Your task to perform on an android device: When is my next appointment? Image 0: 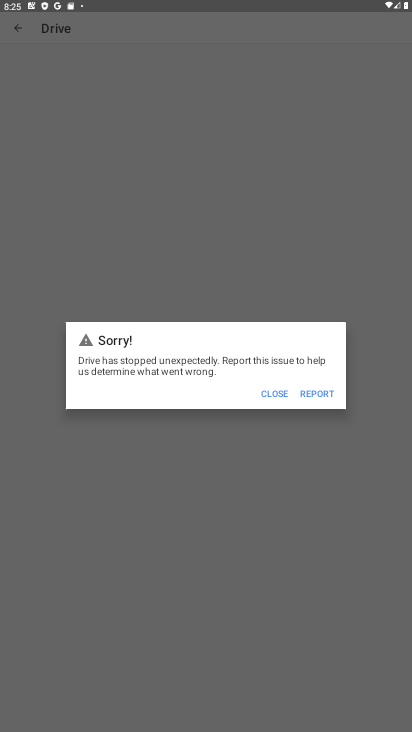
Step 0: click (310, 392)
Your task to perform on an android device: When is my next appointment? Image 1: 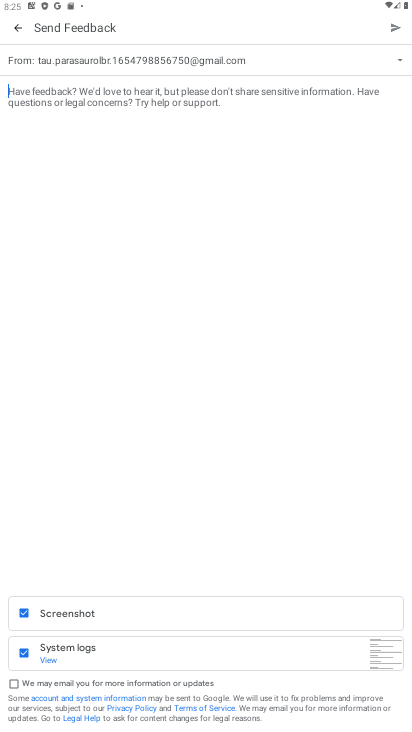
Step 1: press home button
Your task to perform on an android device: When is my next appointment? Image 2: 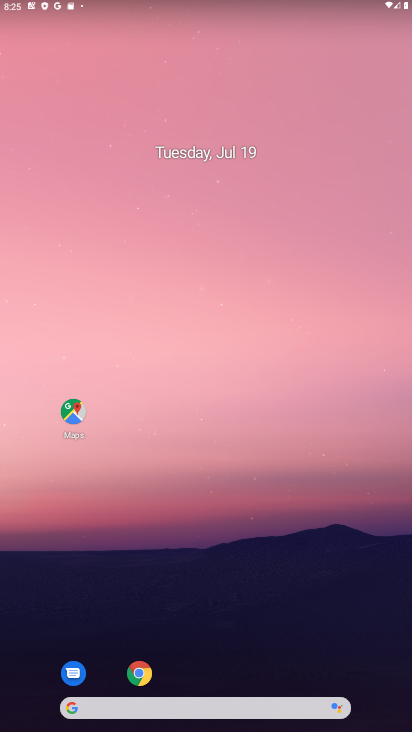
Step 2: drag from (259, 668) to (249, 300)
Your task to perform on an android device: When is my next appointment? Image 3: 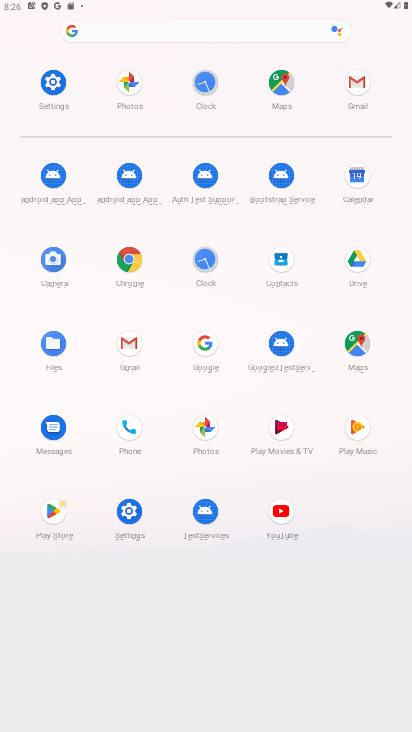
Step 3: click (348, 189)
Your task to perform on an android device: When is my next appointment? Image 4: 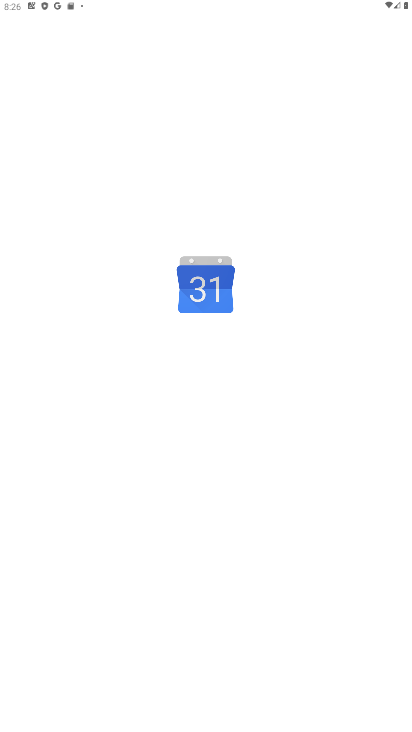
Step 4: task complete